Your task to perform on an android device: Go to network settings Image 0: 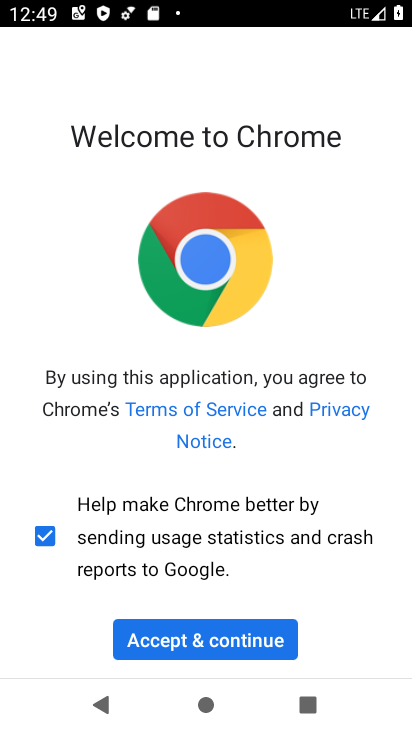
Step 0: press home button
Your task to perform on an android device: Go to network settings Image 1: 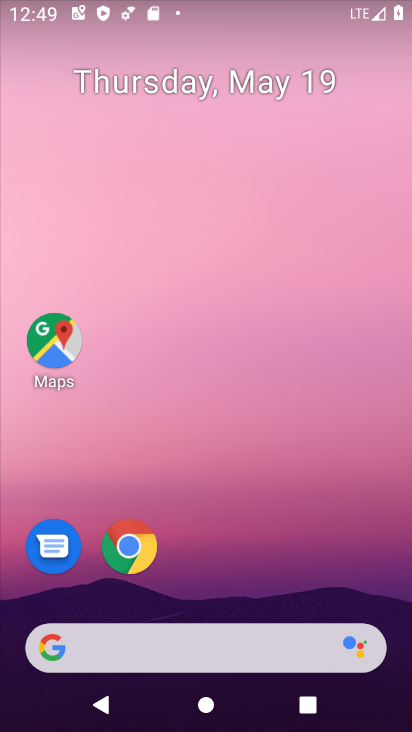
Step 1: drag from (229, 13) to (267, 711)
Your task to perform on an android device: Go to network settings Image 2: 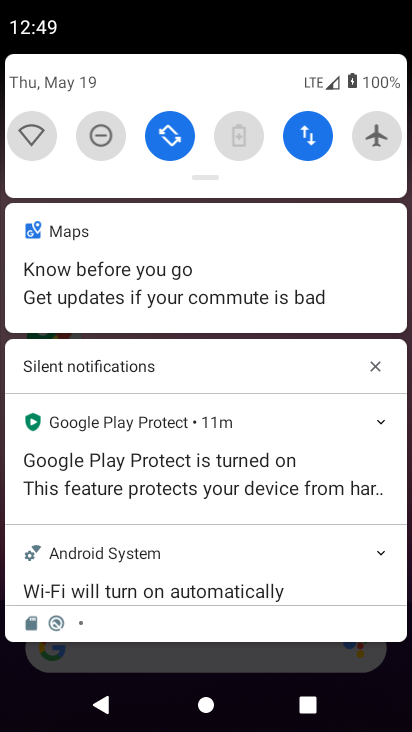
Step 2: click (318, 130)
Your task to perform on an android device: Go to network settings Image 3: 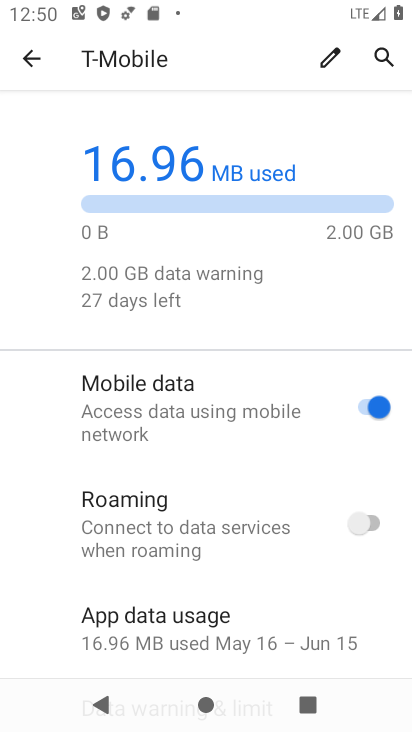
Step 3: task complete